Your task to perform on an android device: Go to Maps Image 0: 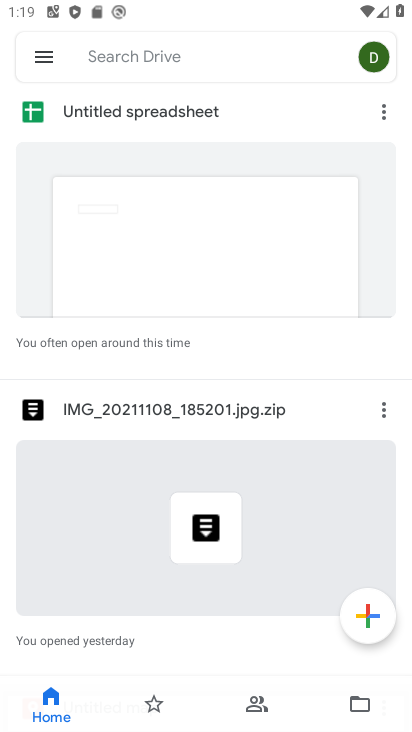
Step 0: press back button
Your task to perform on an android device: Go to Maps Image 1: 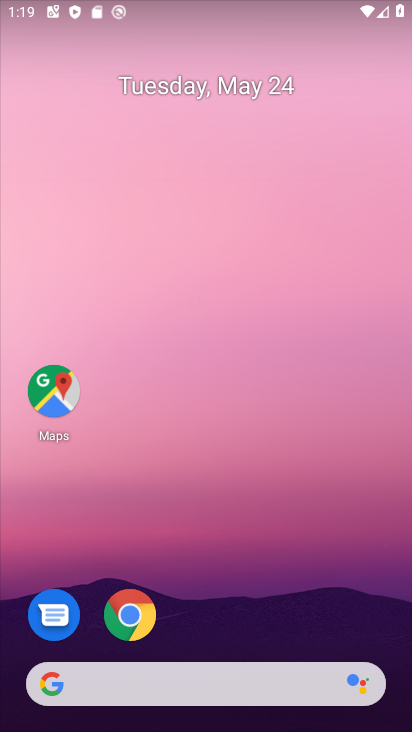
Step 1: click (33, 388)
Your task to perform on an android device: Go to Maps Image 2: 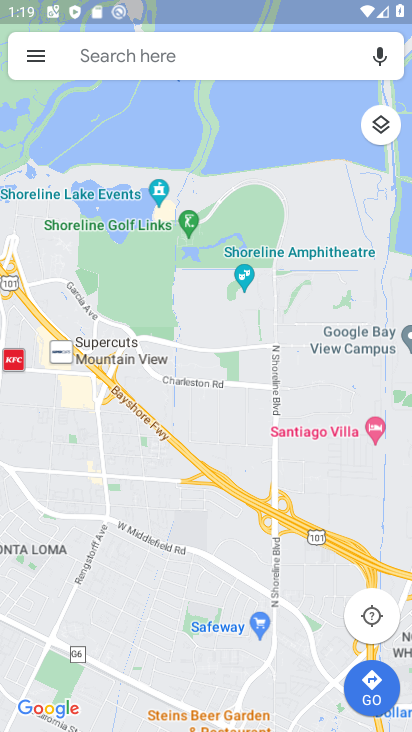
Step 2: task complete